Your task to perform on an android device: check battery use Image 0: 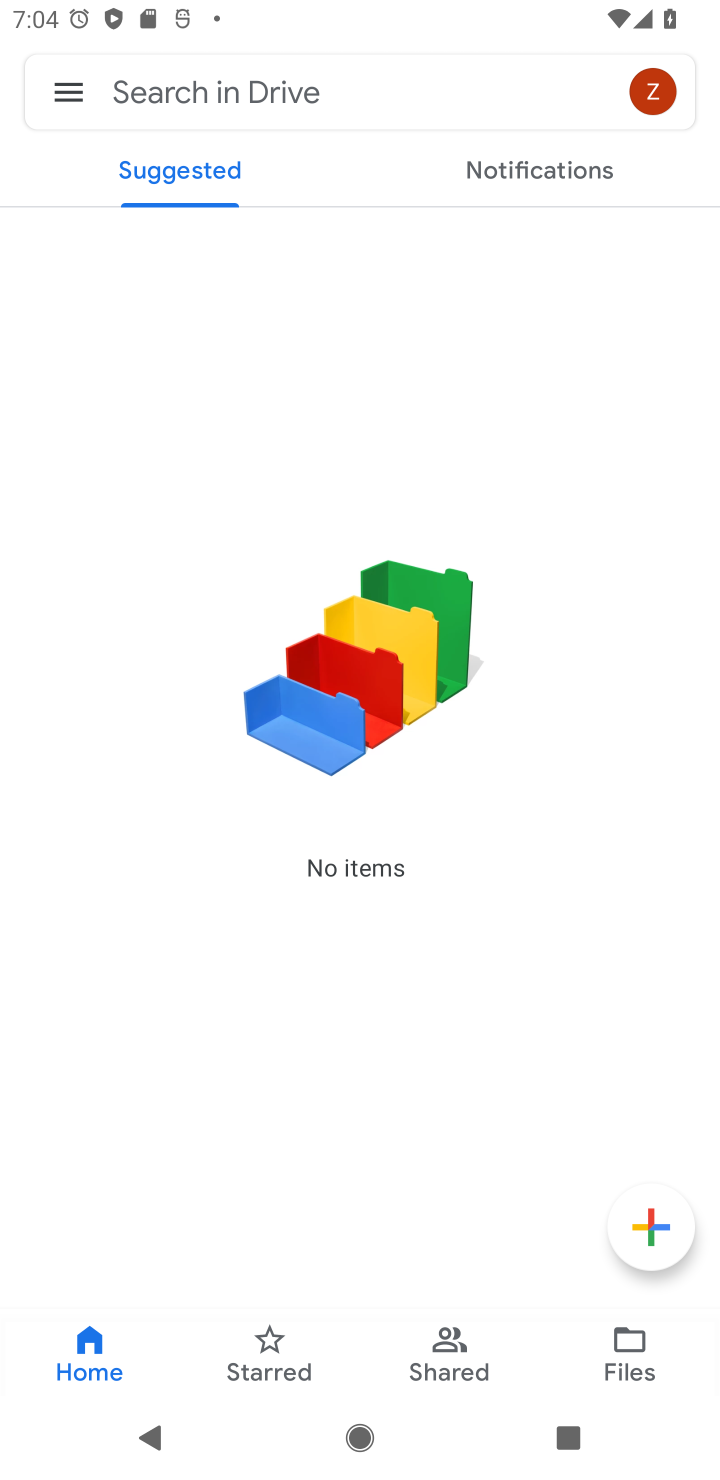
Step 0: press home button
Your task to perform on an android device: check battery use Image 1: 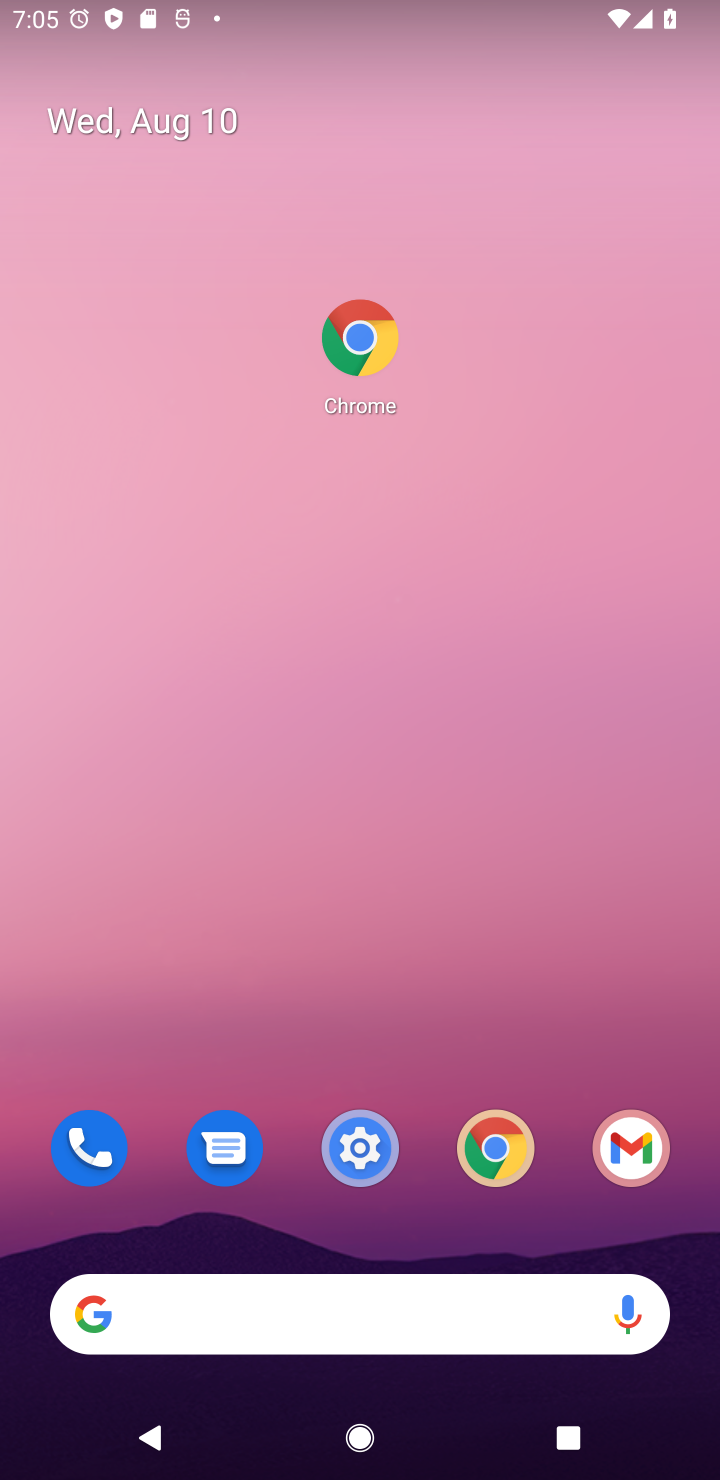
Step 1: click (346, 1146)
Your task to perform on an android device: check battery use Image 2: 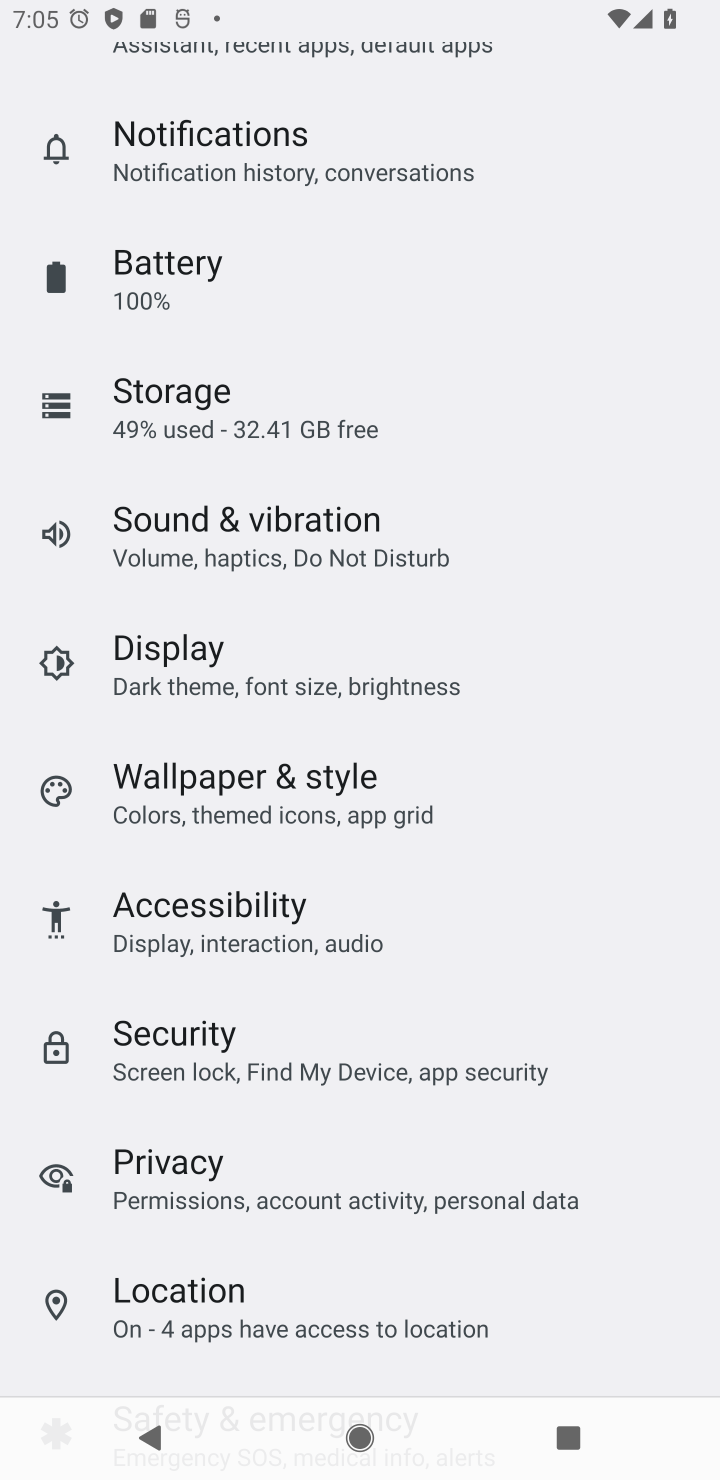
Step 2: click (178, 278)
Your task to perform on an android device: check battery use Image 3: 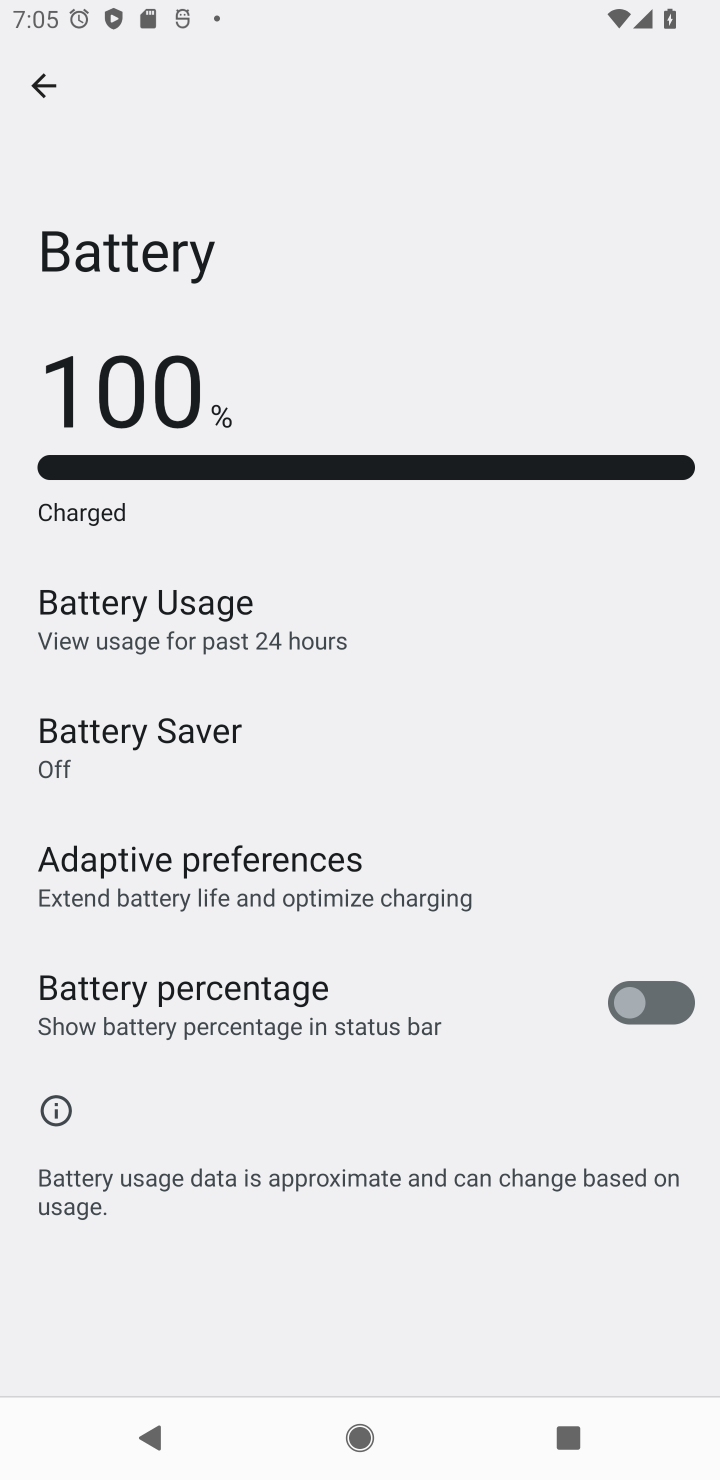
Step 3: click (185, 642)
Your task to perform on an android device: check battery use Image 4: 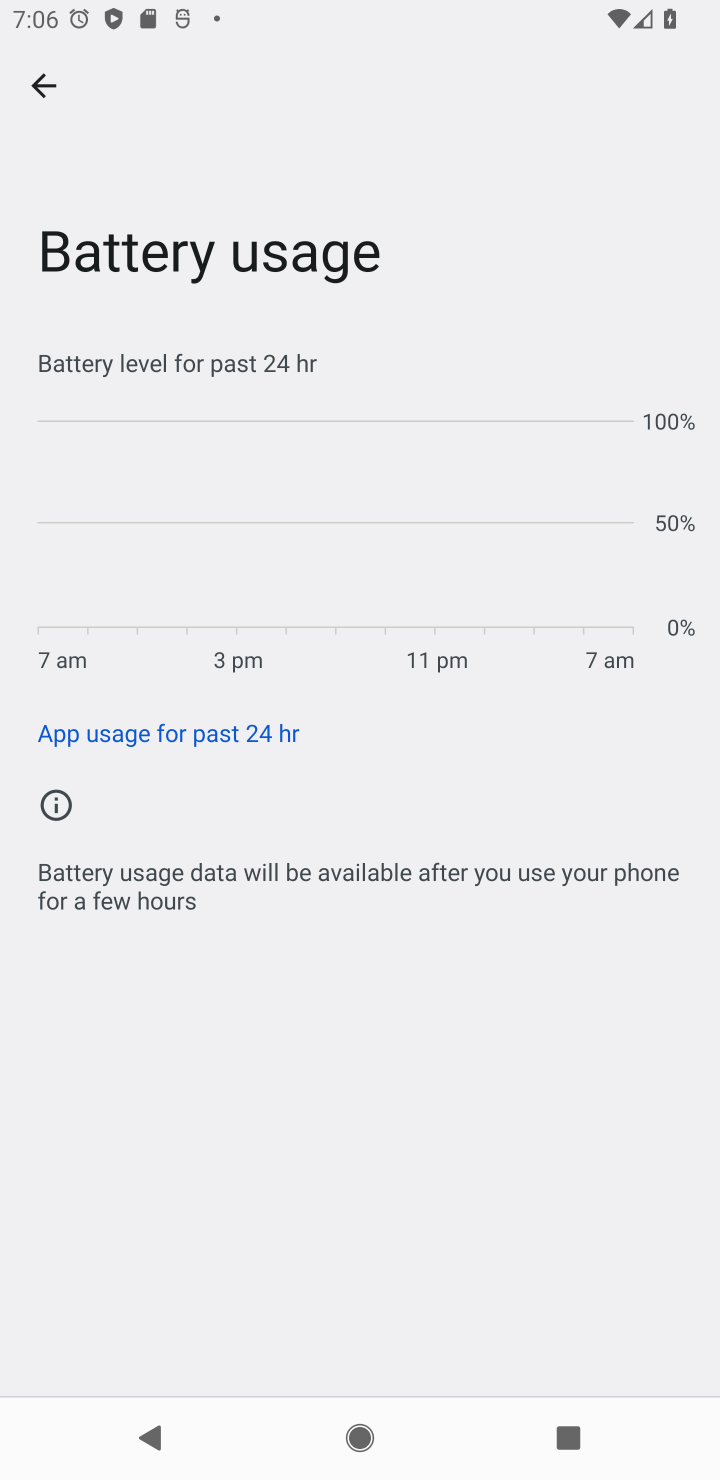
Step 4: task complete